Your task to perform on an android device: Open the map Image 0: 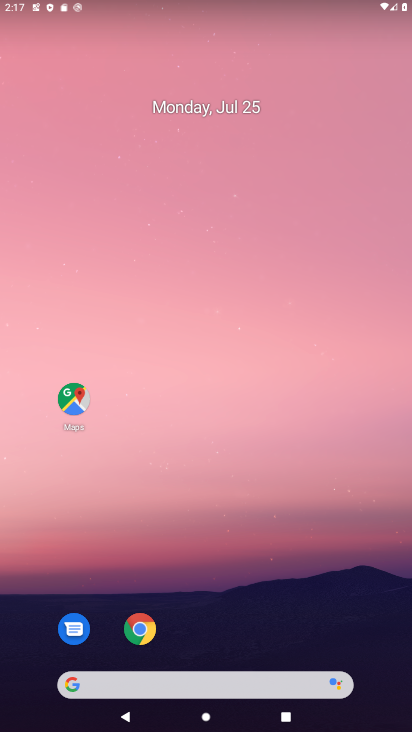
Step 0: drag from (204, 581) to (261, 170)
Your task to perform on an android device: Open the map Image 1: 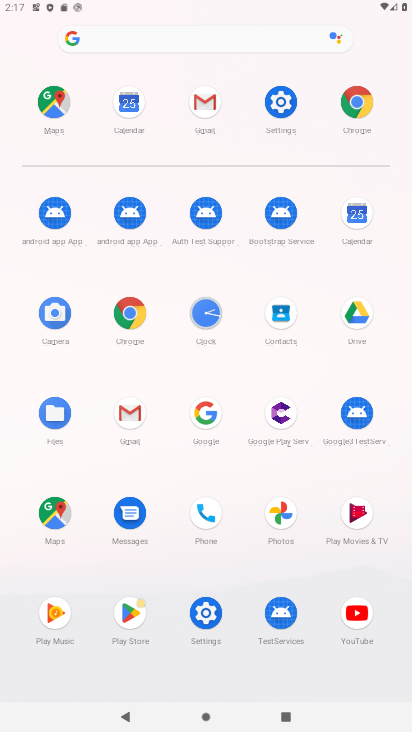
Step 1: click (38, 509)
Your task to perform on an android device: Open the map Image 2: 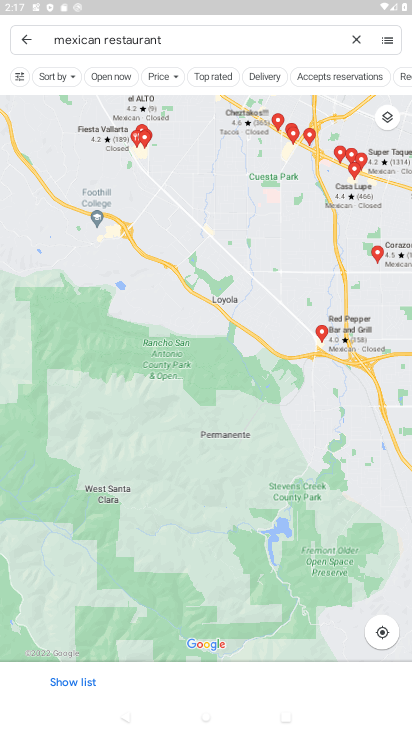
Step 2: click (272, 284)
Your task to perform on an android device: Open the map Image 3: 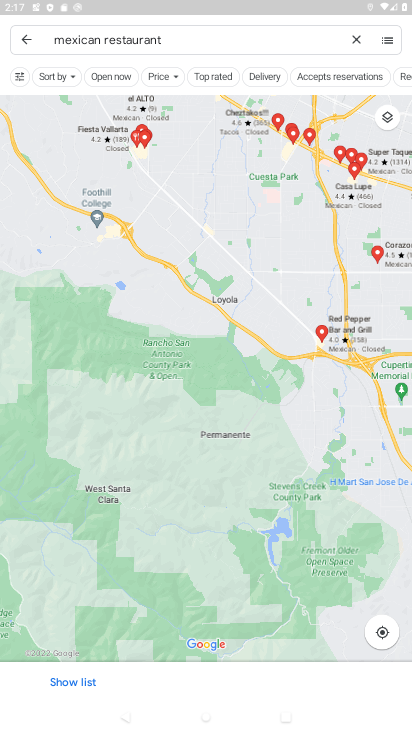
Step 3: task complete